Your task to perform on an android device: change alarm snooze length Image 0: 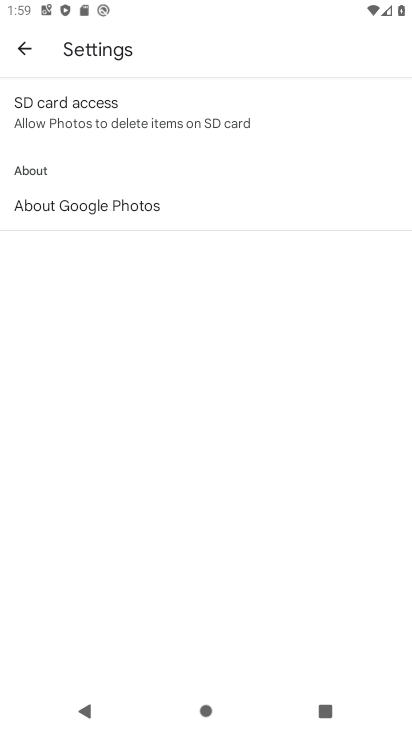
Step 0: press home button
Your task to perform on an android device: change alarm snooze length Image 1: 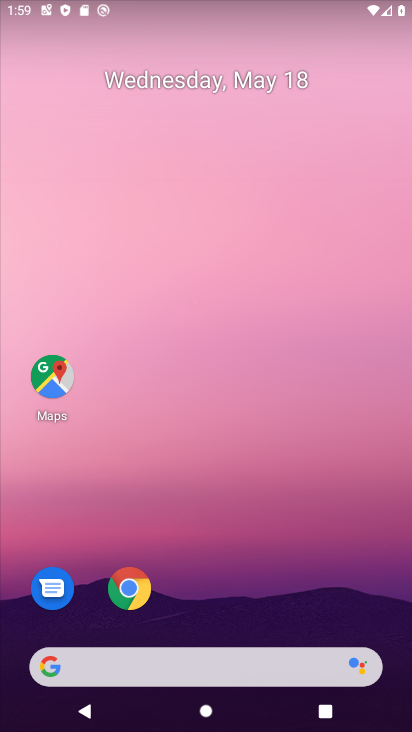
Step 1: drag from (361, 583) to (344, 204)
Your task to perform on an android device: change alarm snooze length Image 2: 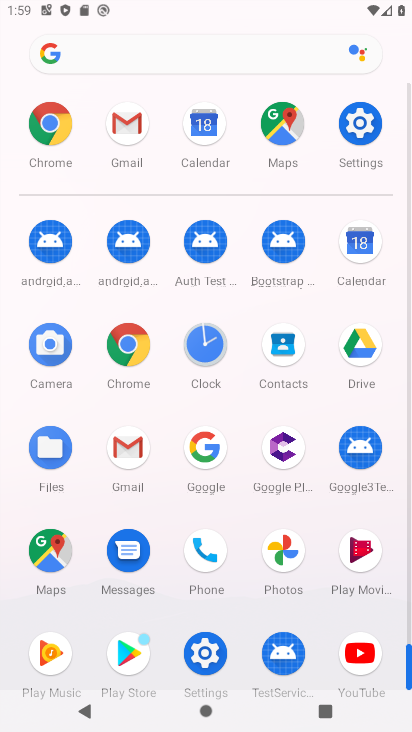
Step 2: click (217, 348)
Your task to perform on an android device: change alarm snooze length Image 3: 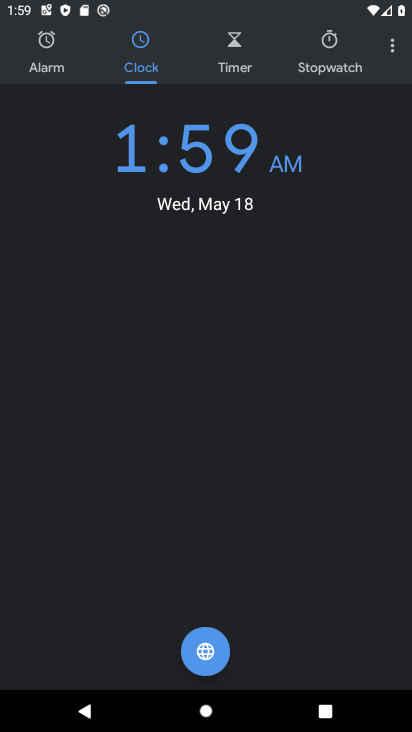
Step 3: click (392, 47)
Your task to perform on an android device: change alarm snooze length Image 4: 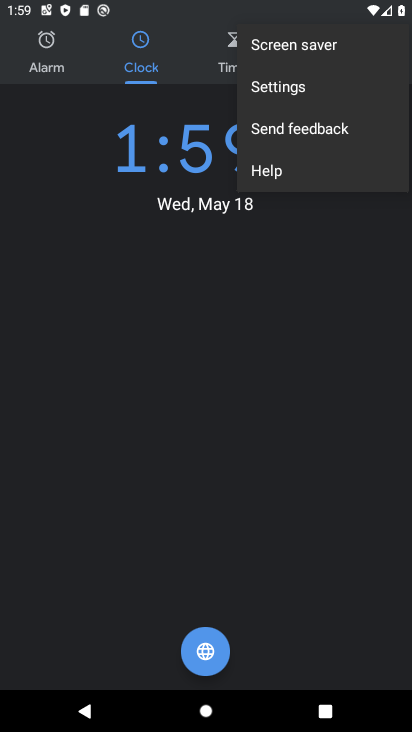
Step 4: click (299, 104)
Your task to perform on an android device: change alarm snooze length Image 5: 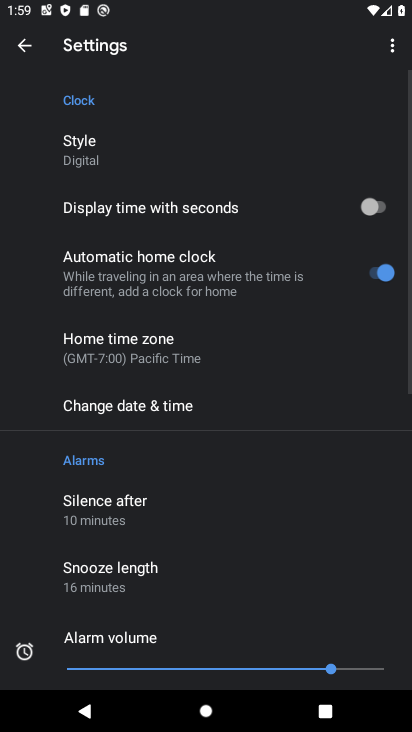
Step 5: drag from (284, 458) to (286, 362)
Your task to perform on an android device: change alarm snooze length Image 6: 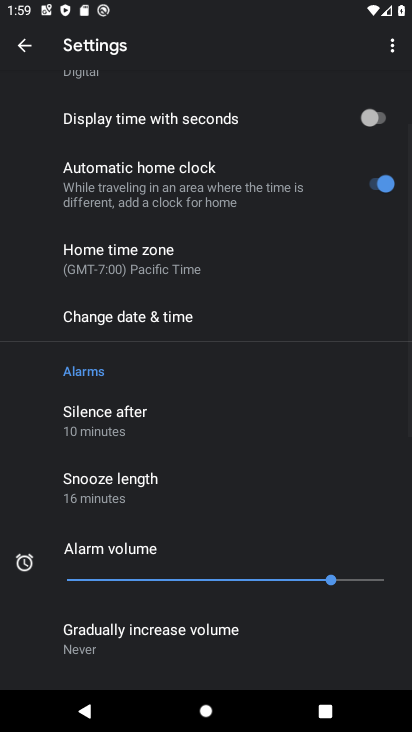
Step 6: drag from (285, 491) to (302, 389)
Your task to perform on an android device: change alarm snooze length Image 7: 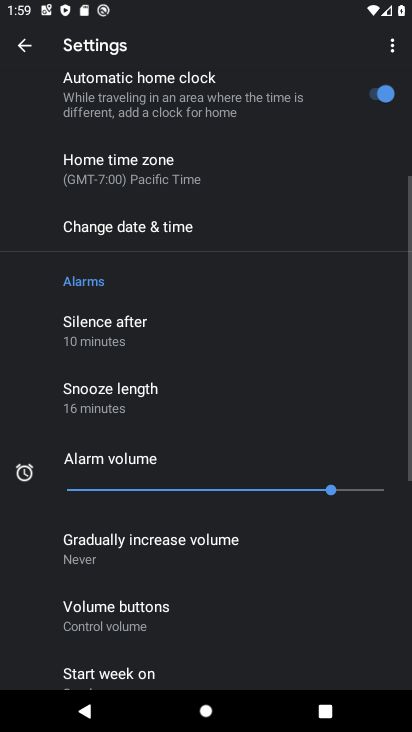
Step 7: drag from (285, 570) to (284, 432)
Your task to perform on an android device: change alarm snooze length Image 8: 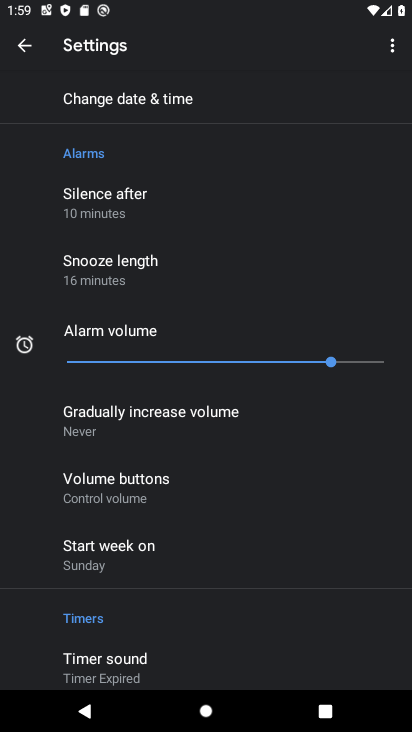
Step 8: drag from (288, 568) to (284, 465)
Your task to perform on an android device: change alarm snooze length Image 9: 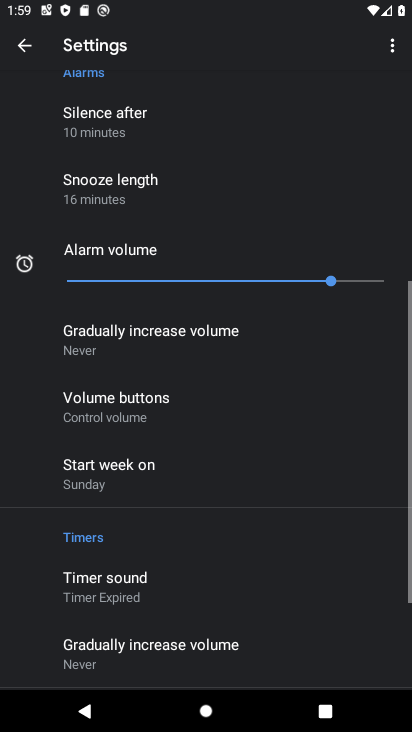
Step 9: drag from (271, 582) to (283, 496)
Your task to perform on an android device: change alarm snooze length Image 10: 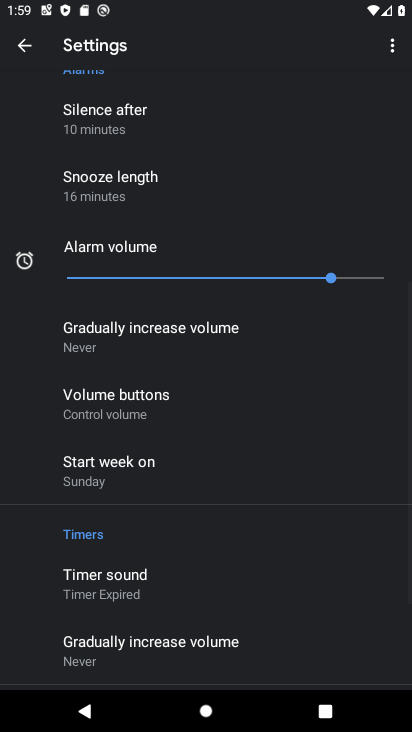
Step 10: drag from (274, 593) to (283, 462)
Your task to perform on an android device: change alarm snooze length Image 11: 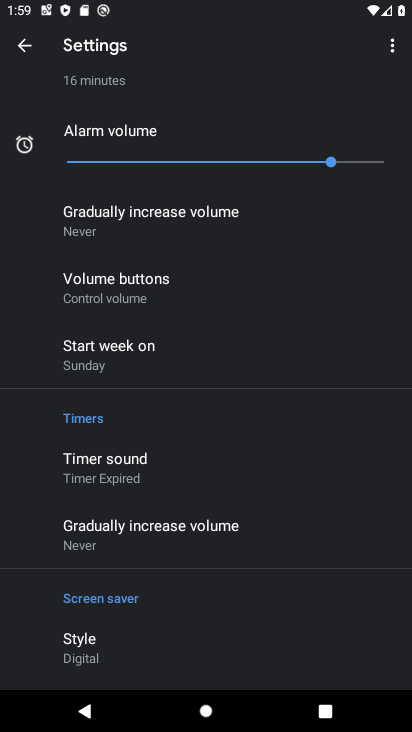
Step 11: drag from (267, 599) to (275, 487)
Your task to perform on an android device: change alarm snooze length Image 12: 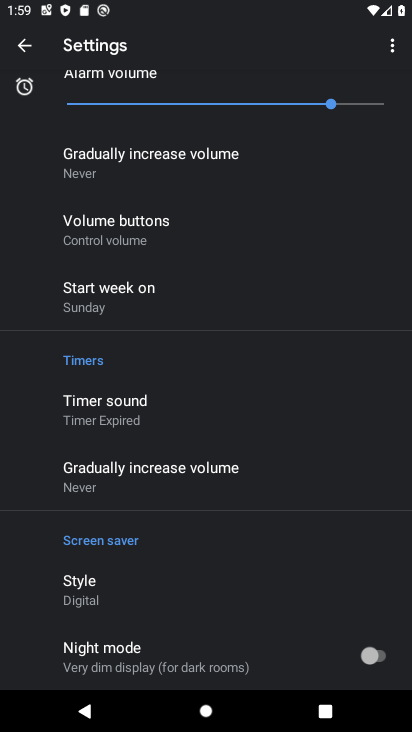
Step 12: drag from (272, 586) to (280, 481)
Your task to perform on an android device: change alarm snooze length Image 13: 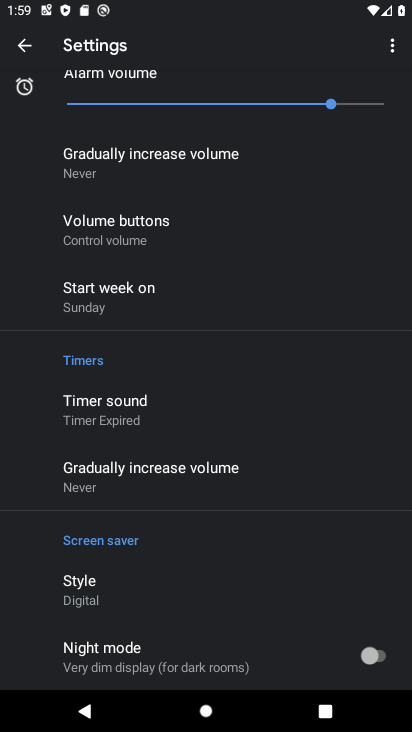
Step 13: drag from (299, 364) to (297, 473)
Your task to perform on an android device: change alarm snooze length Image 14: 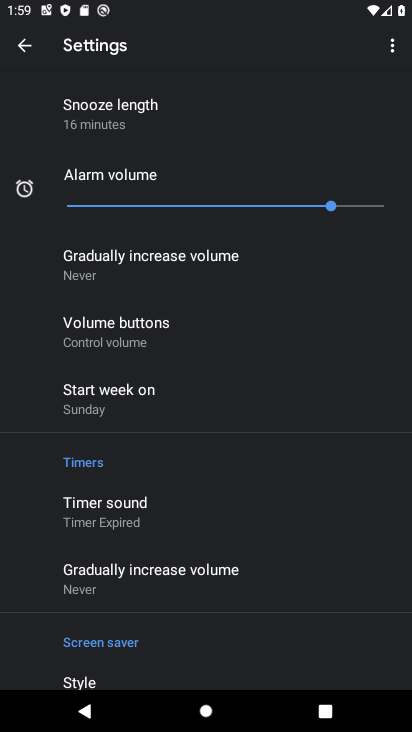
Step 14: drag from (278, 331) to (276, 441)
Your task to perform on an android device: change alarm snooze length Image 15: 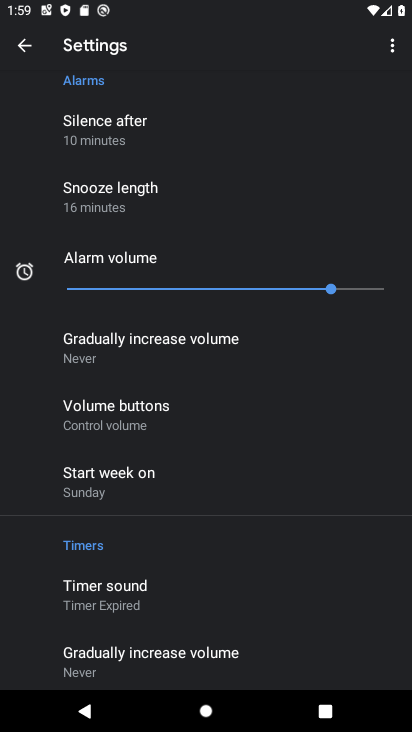
Step 15: drag from (269, 227) to (266, 482)
Your task to perform on an android device: change alarm snooze length Image 16: 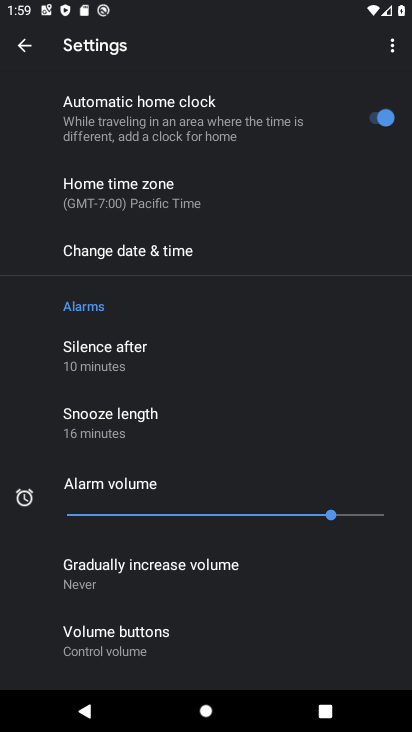
Step 16: click (127, 419)
Your task to perform on an android device: change alarm snooze length Image 17: 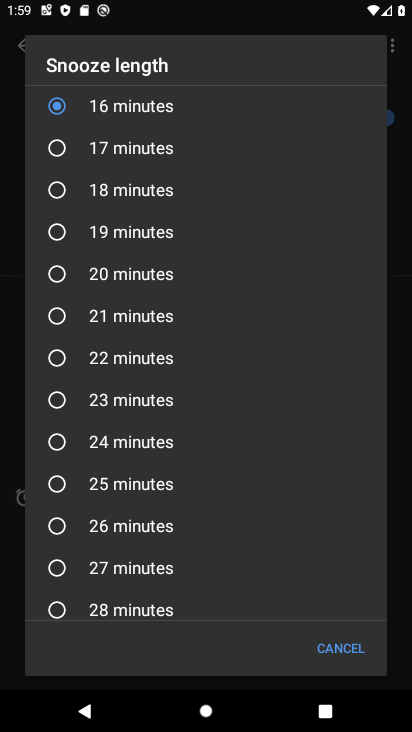
Step 17: click (127, 401)
Your task to perform on an android device: change alarm snooze length Image 18: 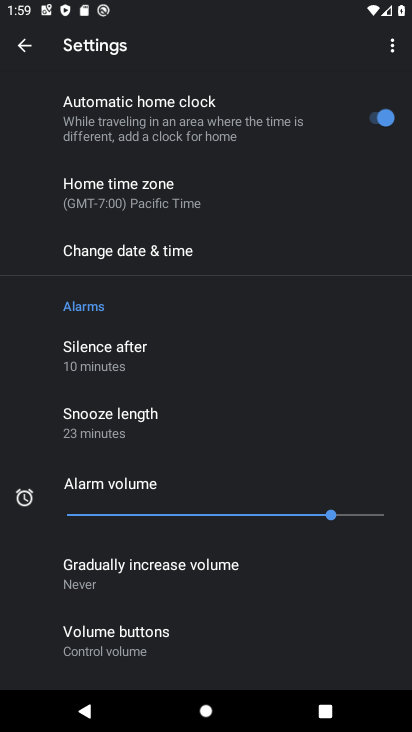
Step 18: task complete